Your task to perform on an android device: turn on wifi Image 0: 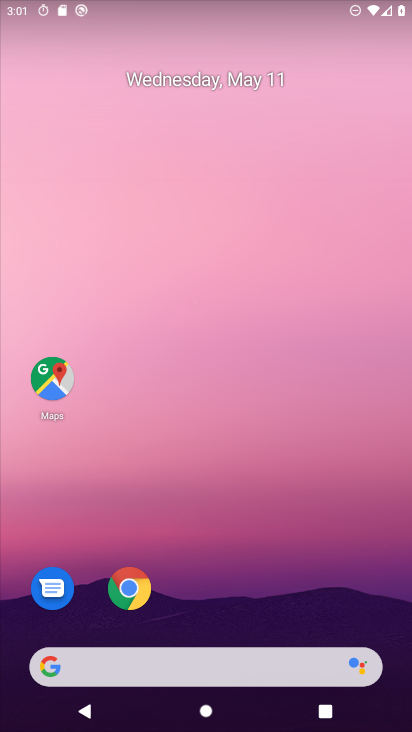
Step 0: drag from (125, 7) to (131, 401)
Your task to perform on an android device: turn on wifi Image 1: 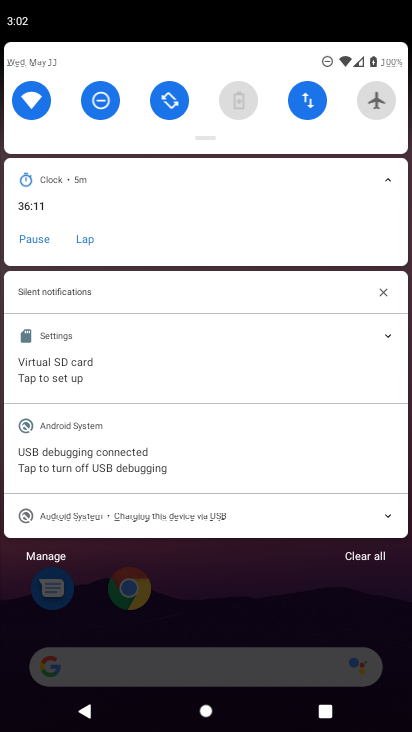
Step 1: task complete